Your task to perform on an android device: change the clock display to analog Image 0: 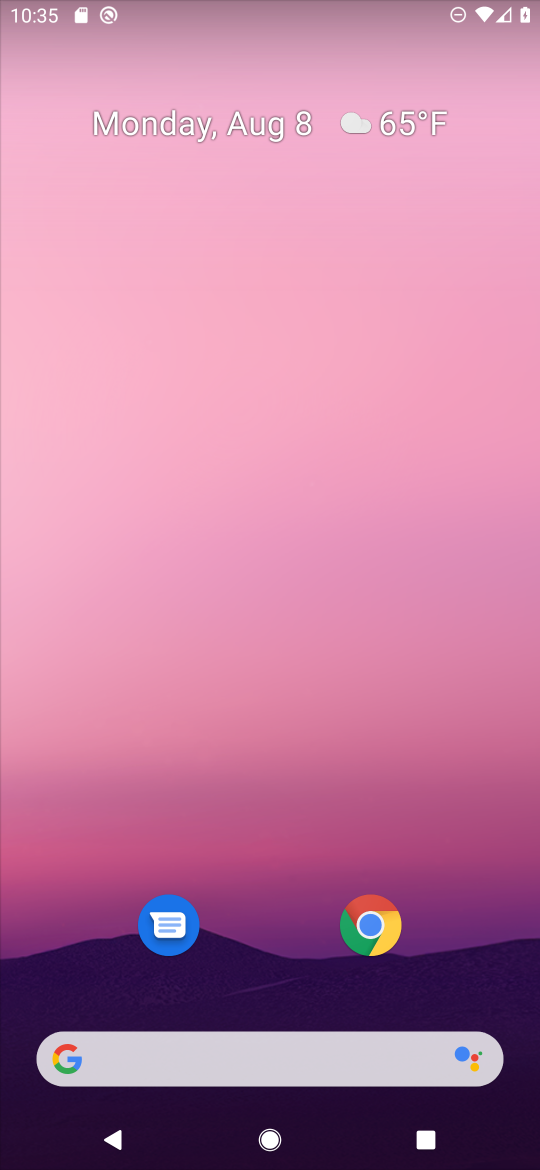
Step 0: drag from (279, 951) to (330, 219)
Your task to perform on an android device: change the clock display to analog Image 1: 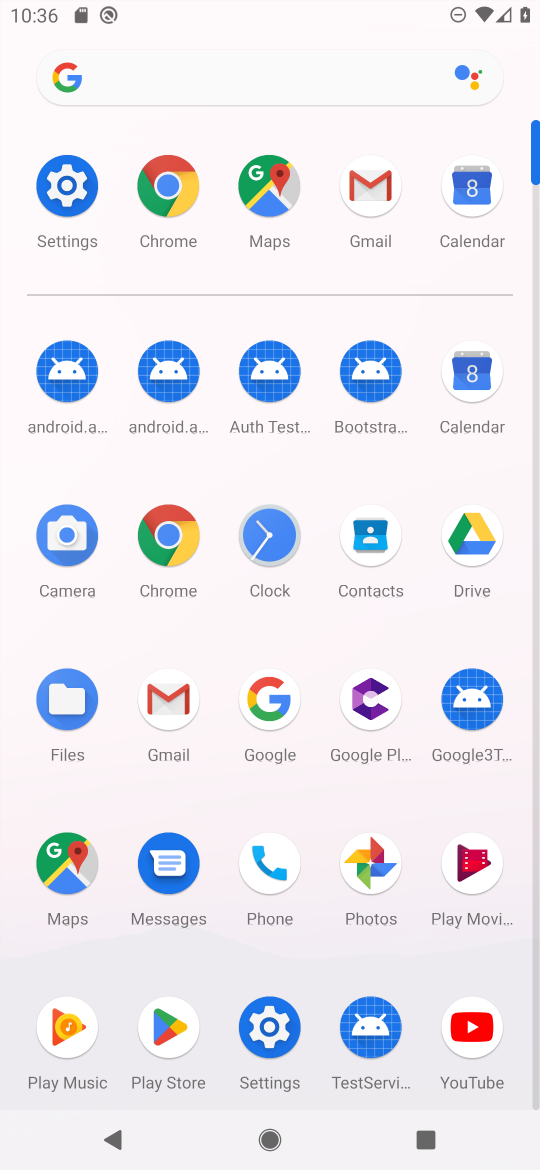
Step 1: click (271, 539)
Your task to perform on an android device: change the clock display to analog Image 2: 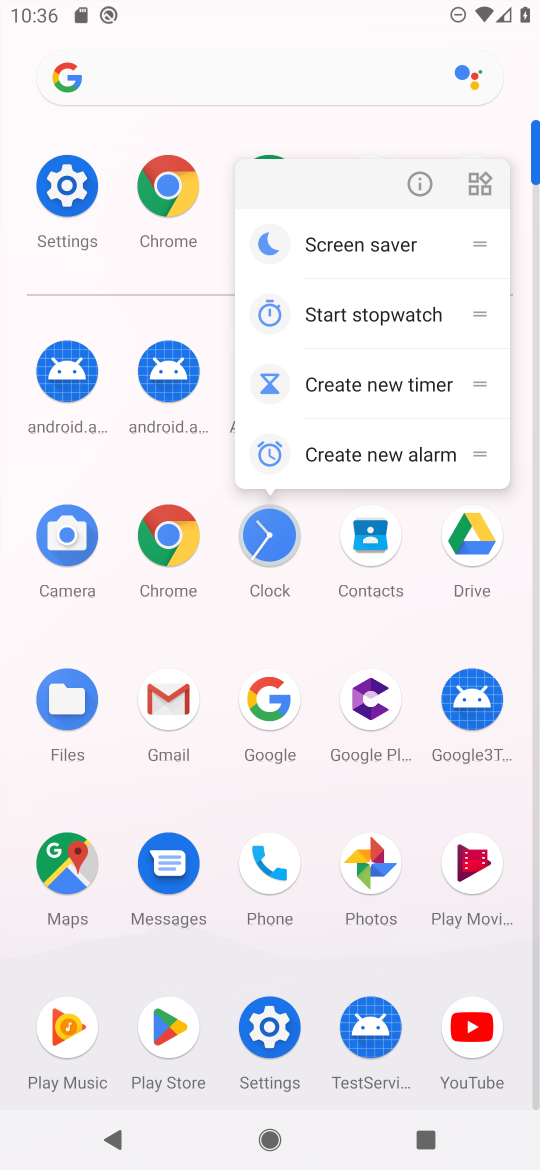
Step 2: click (271, 539)
Your task to perform on an android device: change the clock display to analog Image 3: 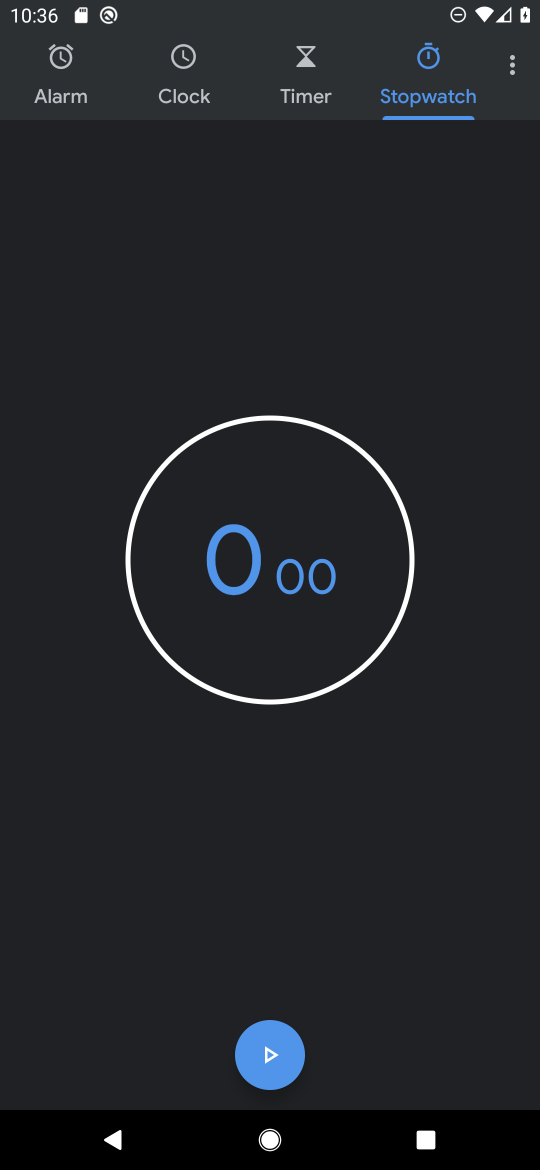
Step 3: click (518, 58)
Your task to perform on an android device: change the clock display to analog Image 4: 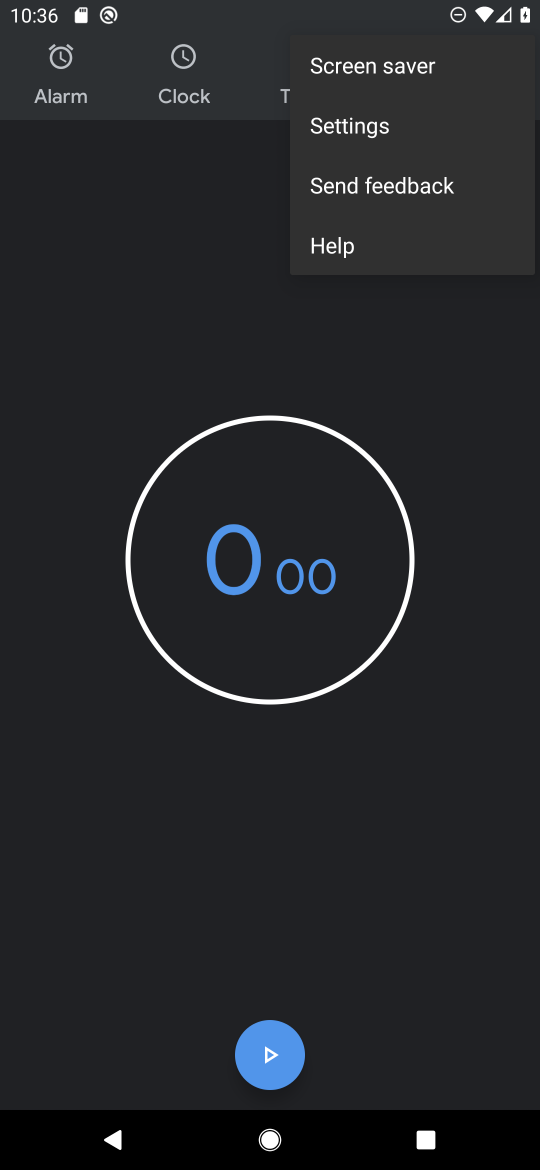
Step 4: click (377, 115)
Your task to perform on an android device: change the clock display to analog Image 5: 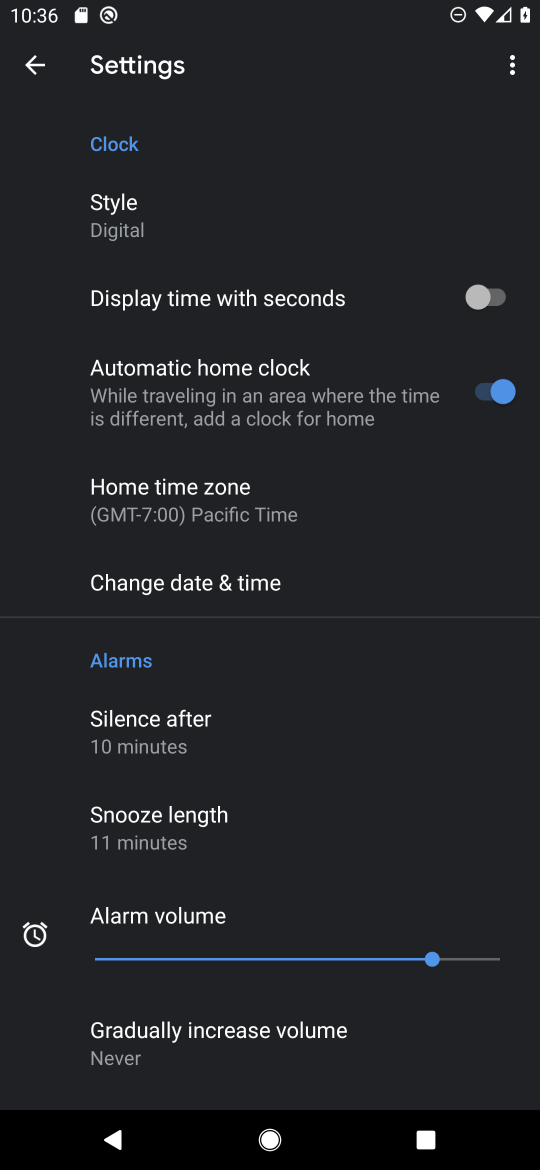
Step 5: click (134, 206)
Your task to perform on an android device: change the clock display to analog Image 6: 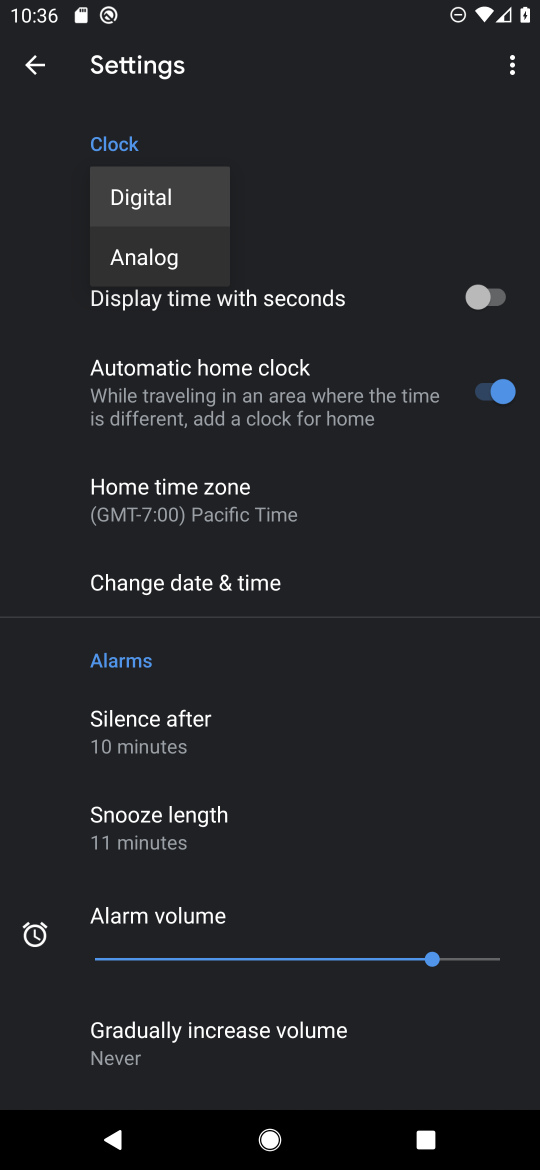
Step 6: click (161, 253)
Your task to perform on an android device: change the clock display to analog Image 7: 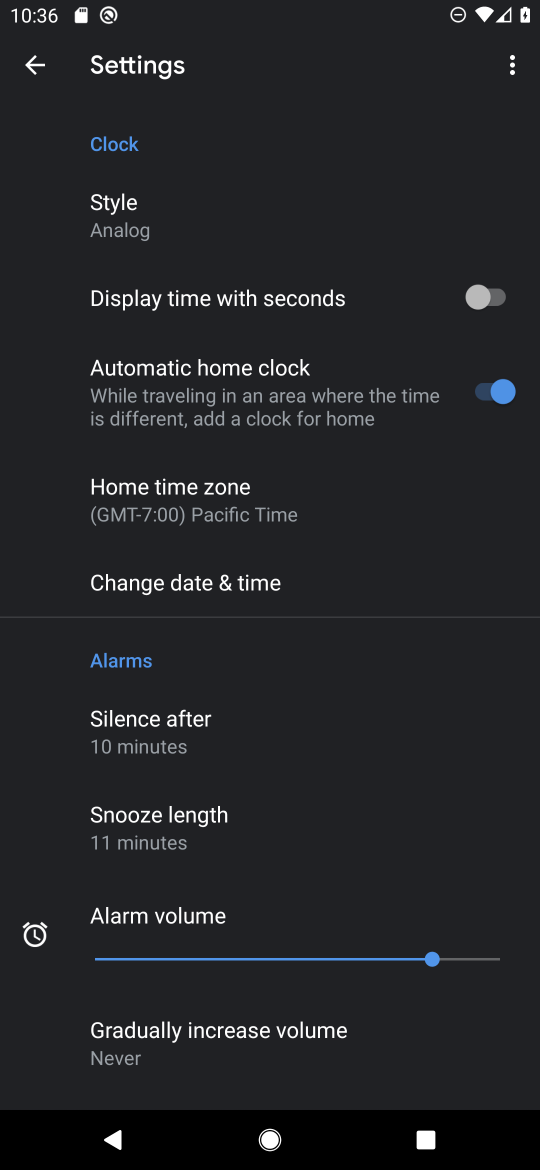
Step 7: task complete